Your task to perform on an android device: Go to wifi settings Image 0: 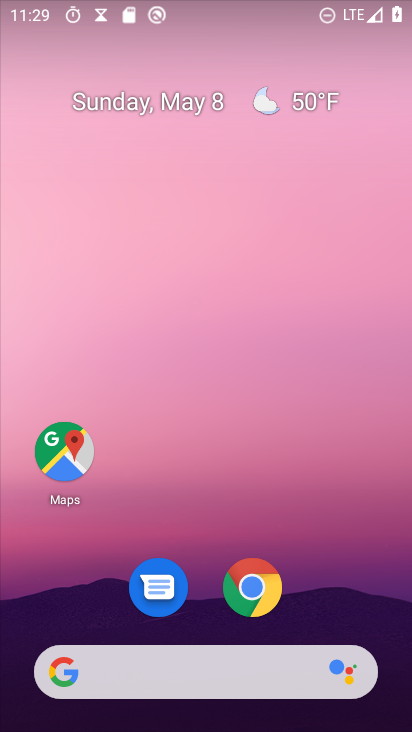
Step 0: drag from (317, 540) to (138, 173)
Your task to perform on an android device: Go to wifi settings Image 1: 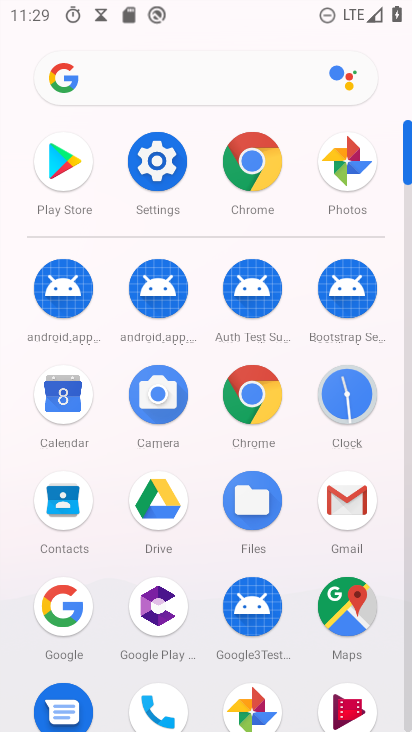
Step 1: click (161, 179)
Your task to perform on an android device: Go to wifi settings Image 2: 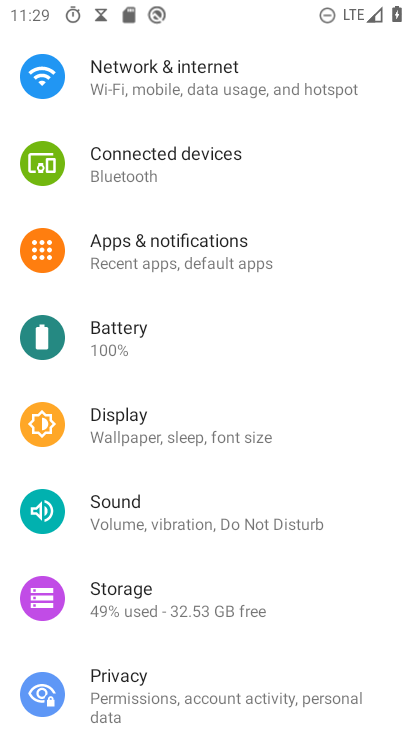
Step 2: drag from (196, 137) to (181, 462)
Your task to perform on an android device: Go to wifi settings Image 3: 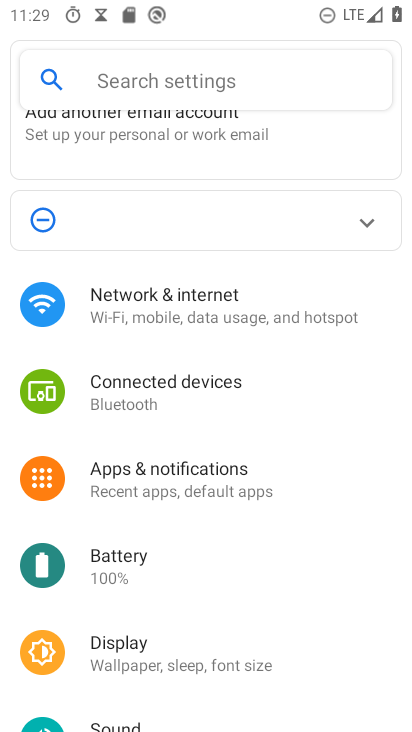
Step 3: click (180, 317)
Your task to perform on an android device: Go to wifi settings Image 4: 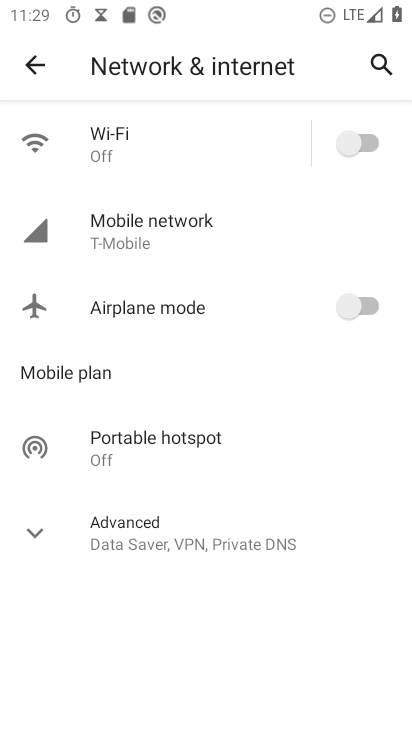
Step 4: click (104, 146)
Your task to perform on an android device: Go to wifi settings Image 5: 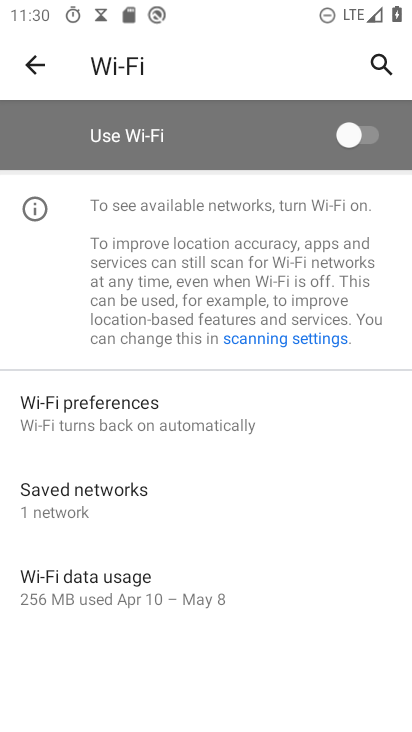
Step 5: task complete